Your task to perform on an android device: Open Google Maps and go to "Timeline" Image 0: 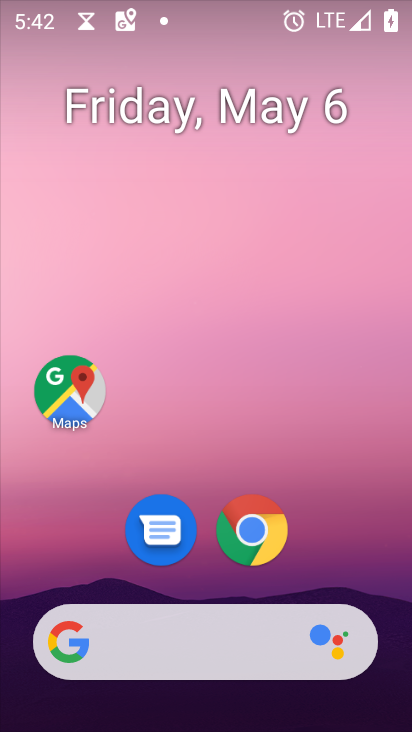
Step 0: click (73, 395)
Your task to perform on an android device: Open Google Maps and go to "Timeline" Image 1: 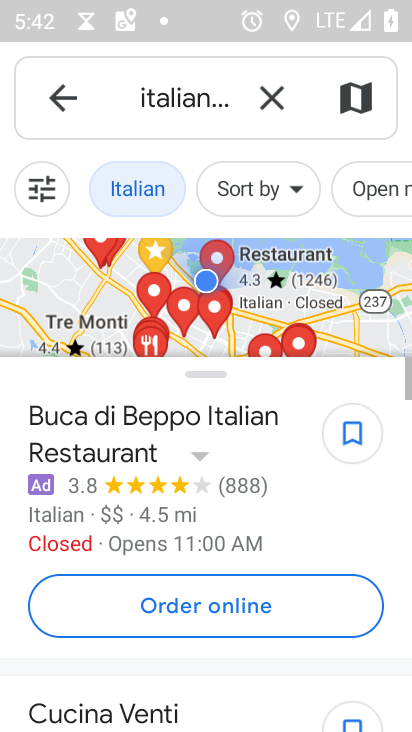
Step 1: click (271, 93)
Your task to perform on an android device: Open Google Maps and go to "Timeline" Image 2: 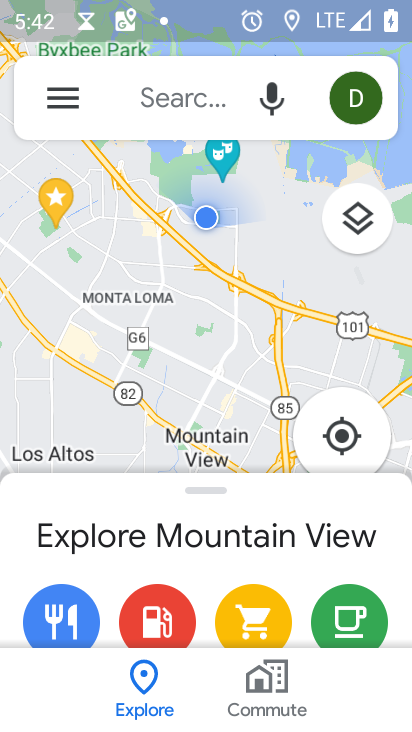
Step 2: click (60, 94)
Your task to perform on an android device: Open Google Maps and go to "Timeline" Image 3: 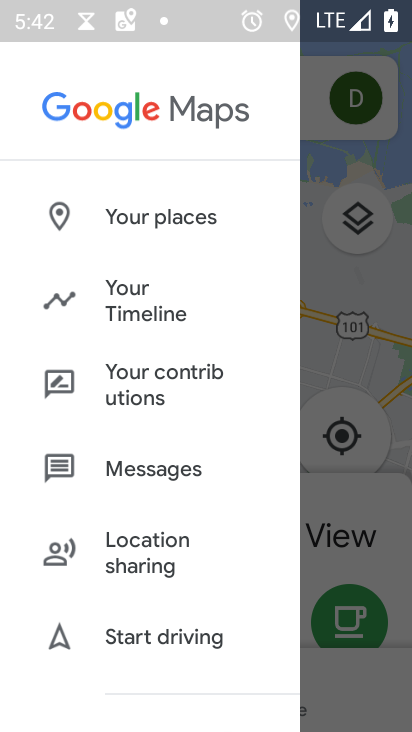
Step 3: click (143, 293)
Your task to perform on an android device: Open Google Maps and go to "Timeline" Image 4: 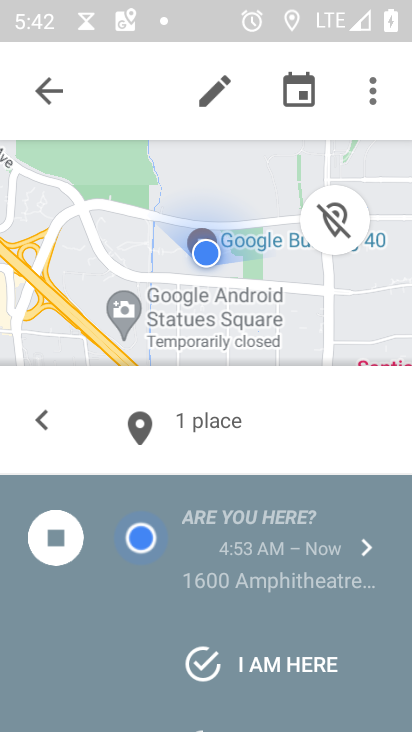
Step 4: task complete